Your task to perform on an android device: move a message to another label in the gmail app Image 0: 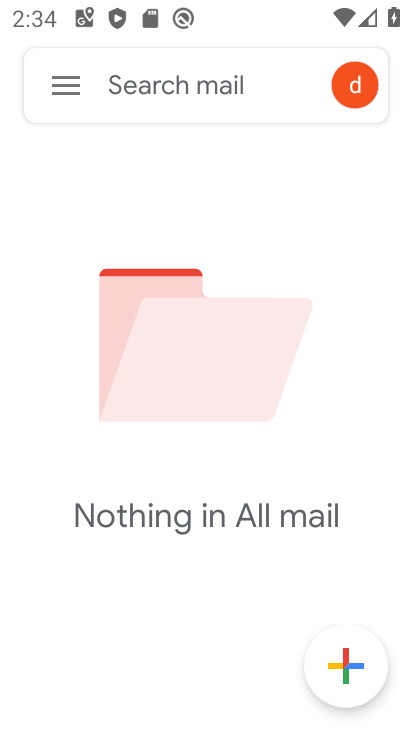
Step 0: task impossible